Your task to perform on an android device: Go to CNN.com Image 0: 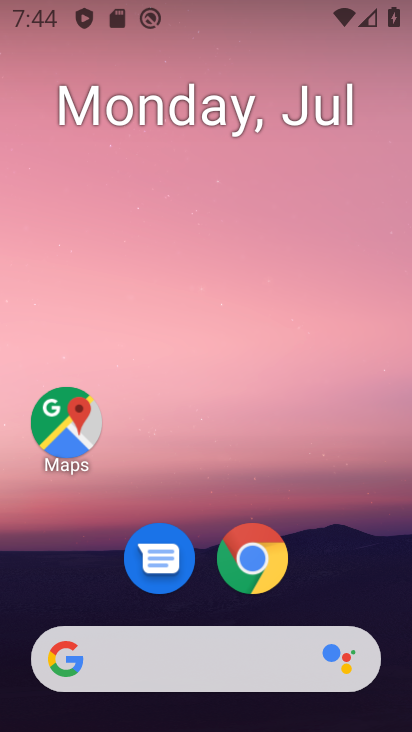
Step 0: click (275, 563)
Your task to perform on an android device: Go to CNN.com Image 1: 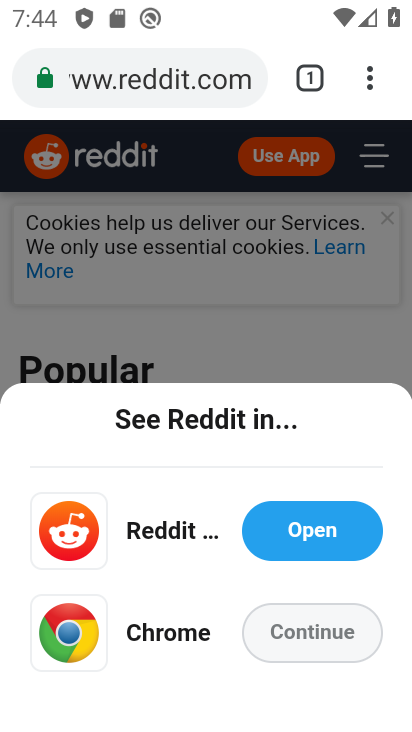
Step 1: click (307, 629)
Your task to perform on an android device: Go to CNN.com Image 2: 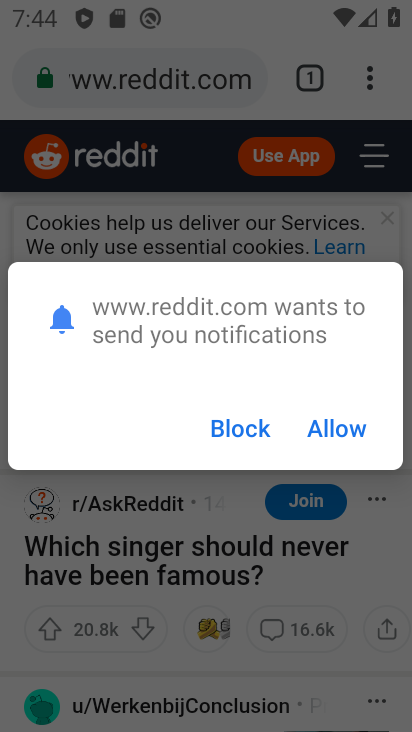
Step 2: click (248, 430)
Your task to perform on an android device: Go to CNN.com Image 3: 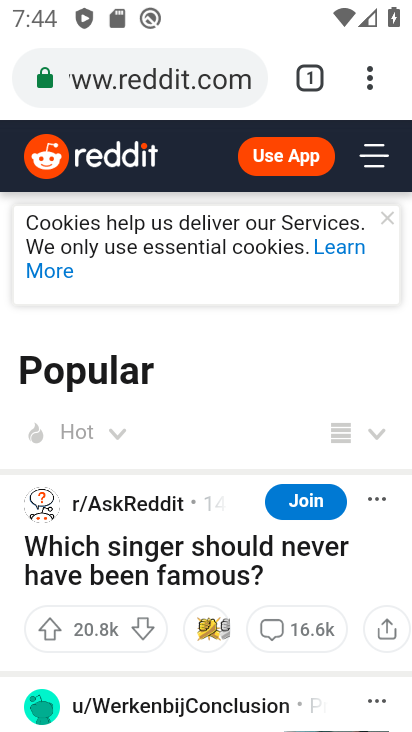
Step 3: click (373, 81)
Your task to perform on an android device: Go to CNN.com Image 4: 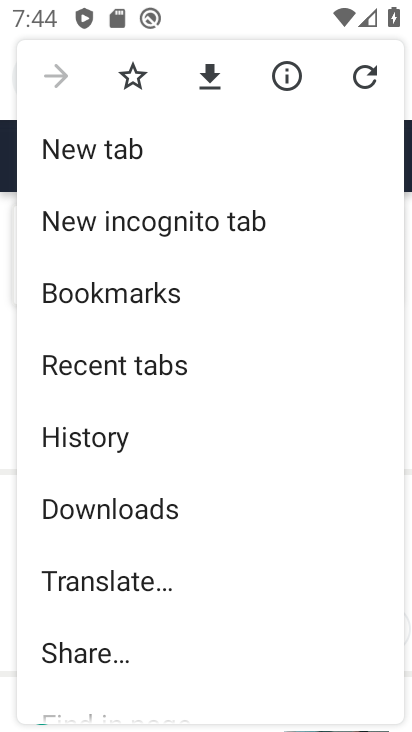
Step 4: click (145, 146)
Your task to perform on an android device: Go to CNN.com Image 5: 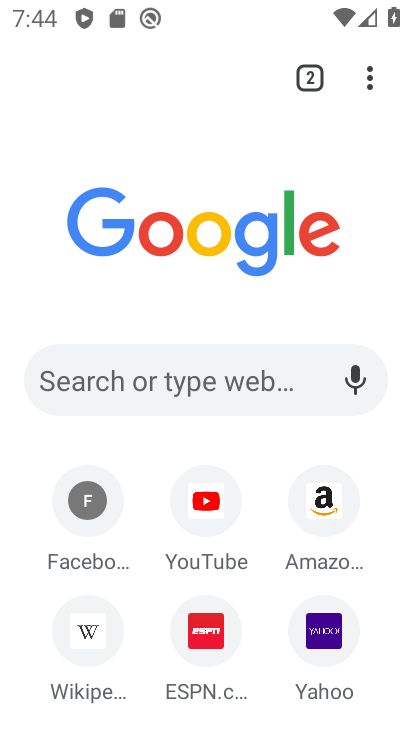
Step 5: click (199, 362)
Your task to perform on an android device: Go to CNN.com Image 6: 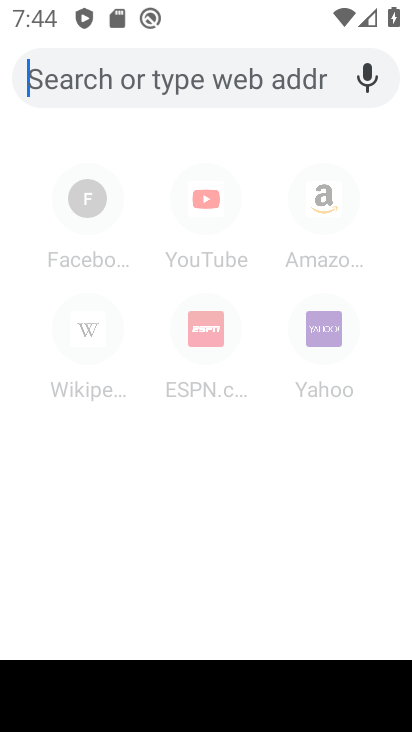
Step 6: type "cnn.com"
Your task to perform on an android device: Go to CNN.com Image 7: 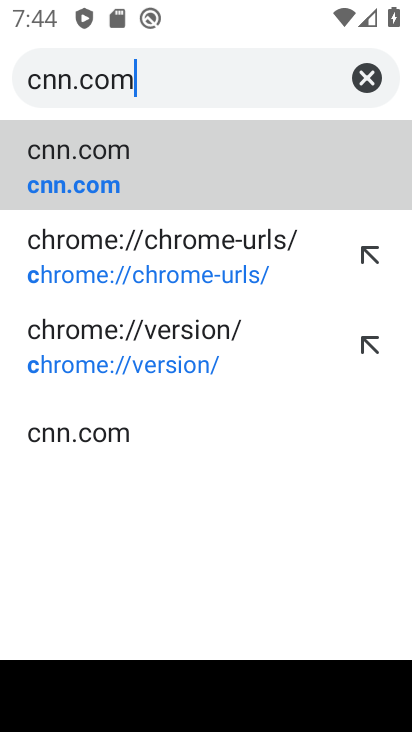
Step 7: type ""
Your task to perform on an android device: Go to CNN.com Image 8: 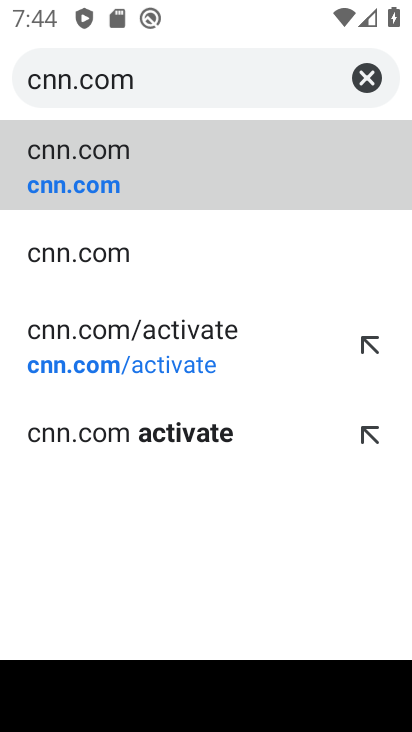
Step 8: click (256, 198)
Your task to perform on an android device: Go to CNN.com Image 9: 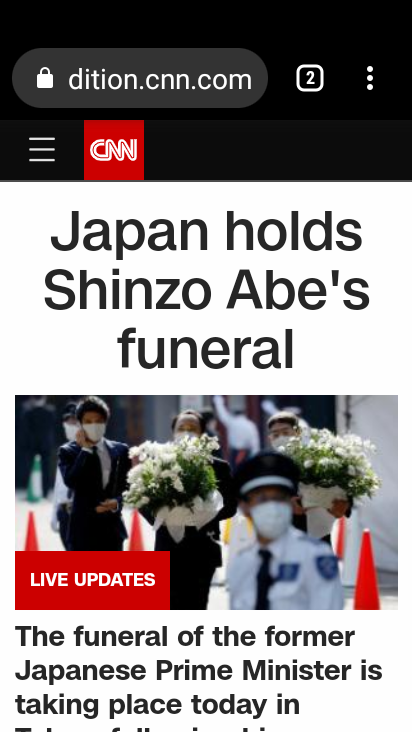
Step 9: task complete